Your task to perform on an android device: Open Chrome and go to settings Image 0: 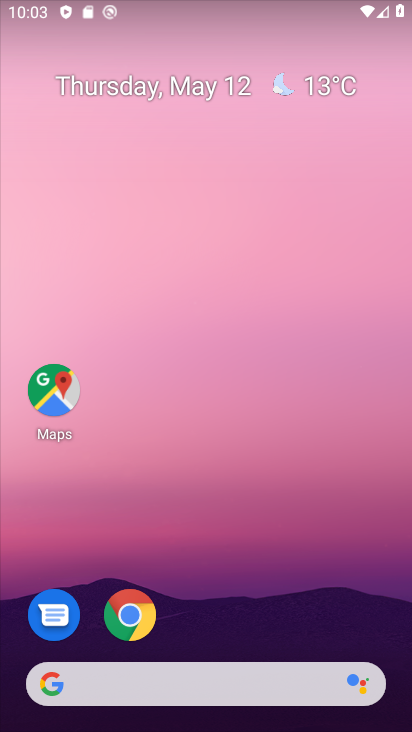
Step 0: drag from (332, 582) to (362, 178)
Your task to perform on an android device: Open Chrome and go to settings Image 1: 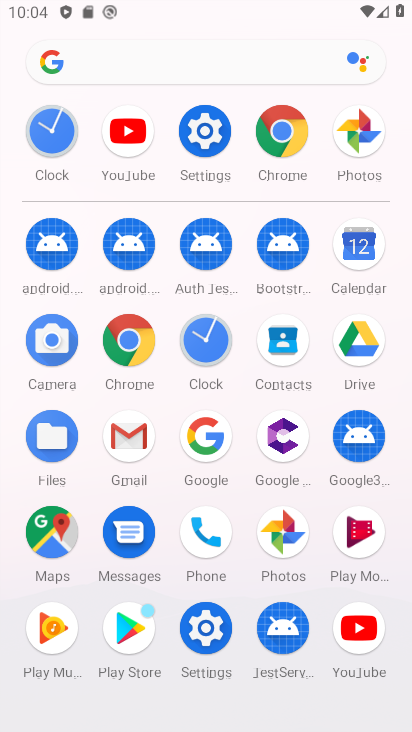
Step 1: click (295, 128)
Your task to perform on an android device: Open Chrome and go to settings Image 2: 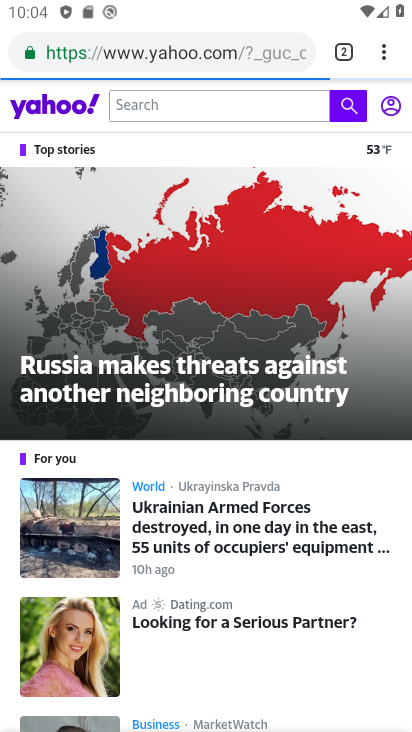
Step 2: task complete